Your task to perform on an android device: turn on improve location accuracy Image 0: 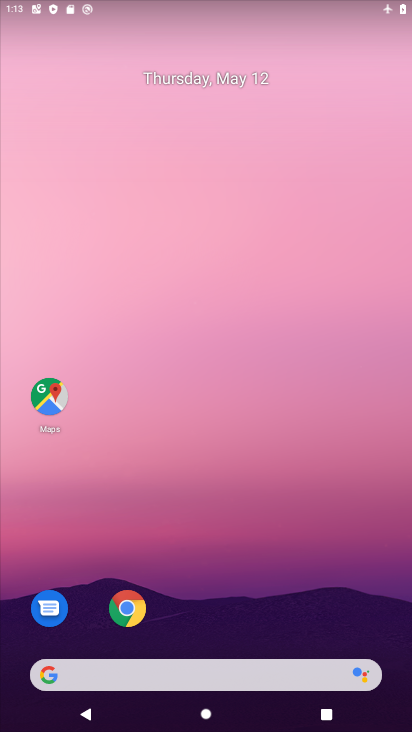
Step 0: drag from (344, 513) to (366, 3)
Your task to perform on an android device: turn on improve location accuracy Image 1: 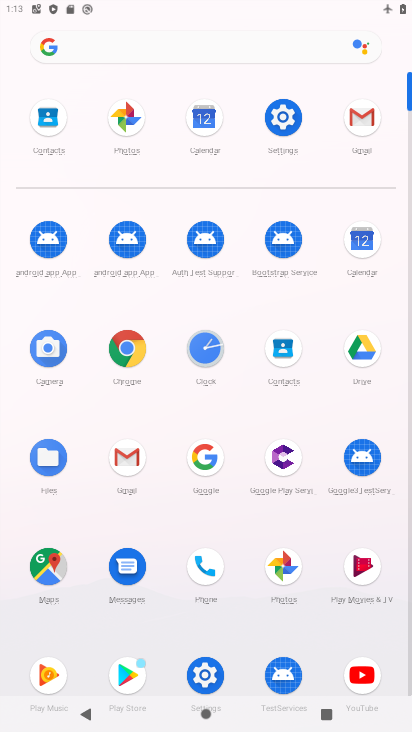
Step 1: click (280, 151)
Your task to perform on an android device: turn on improve location accuracy Image 2: 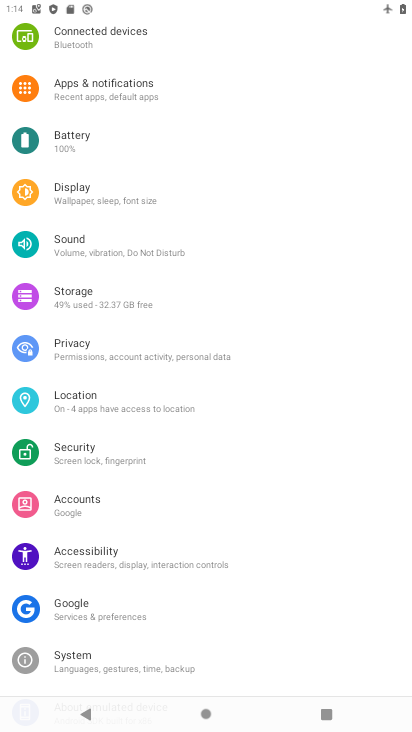
Step 2: click (63, 398)
Your task to perform on an android device: turn on improve location accuracy Image 3: 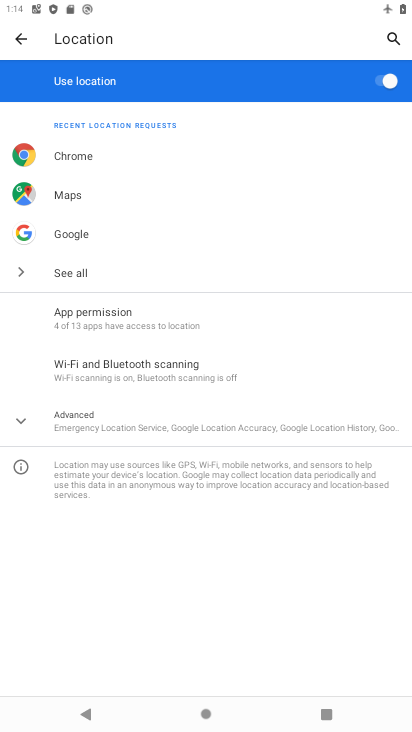
Step 3: click (16, 422)
Your task to perform on an android device: turn on improve location accuracy Image 4: 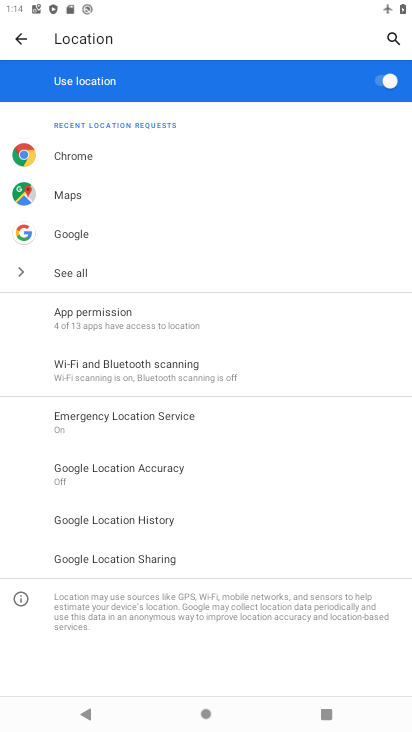
Step 4: click (80, 465)
Your task to perform on an android device: turn on improve location accuracy Image 5: 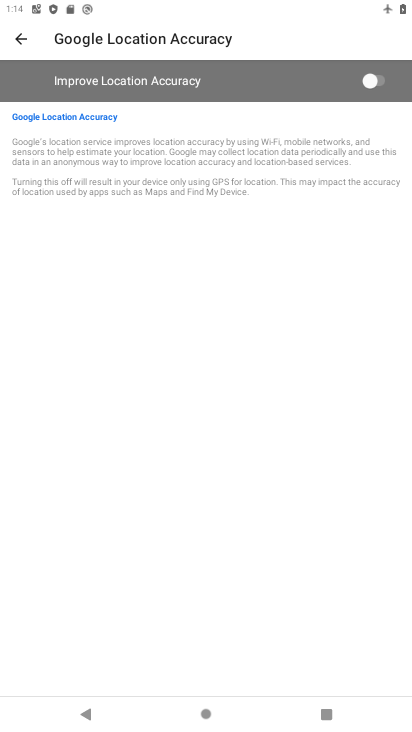
Step 5: click (378, 81)
Your task to perform on an android device: turn on improve location accuracy Image 6: 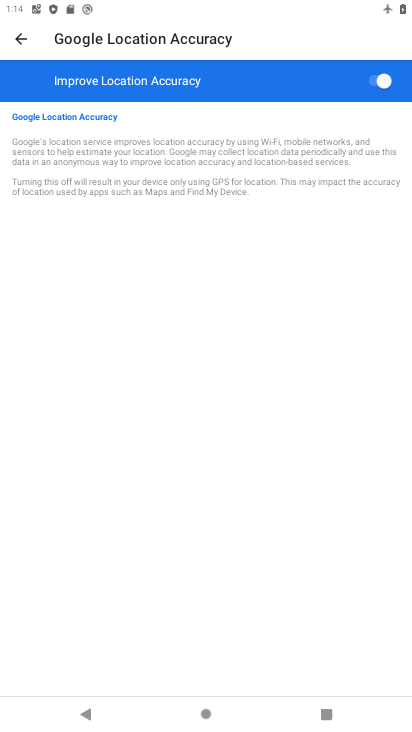
Step 6: task complete